Your task to perform on an android device: What is the recent news? Image 0: 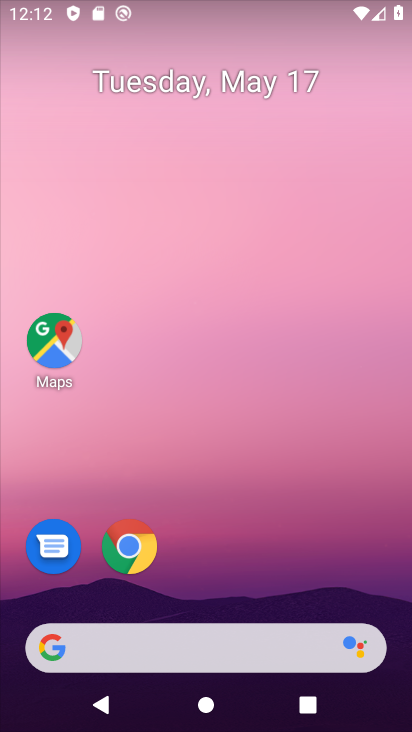
Step 0: drag from (315, 526) to (321, 69)
Your task to perform on an android device: What is the recent news? Image 1: 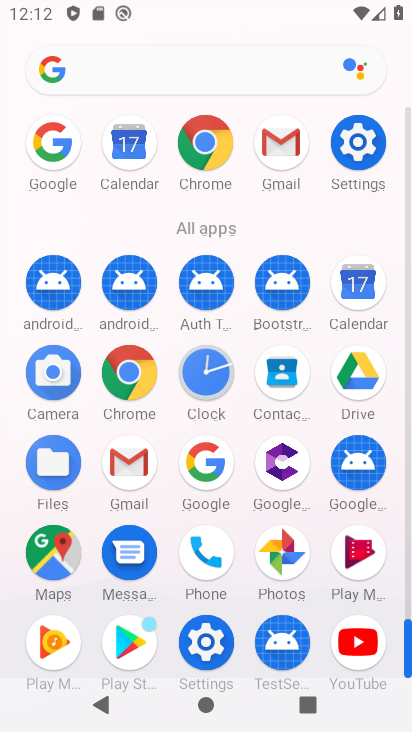
Step 1: click (206, 122)
Your task to perform on an android device: What is the recent news? Image 2: 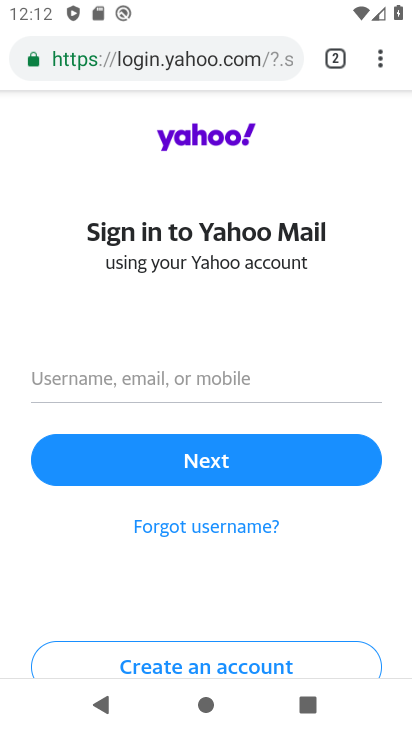
Step 2: task complete